Your task to perform on an android device: What is the recent news? Image 0: 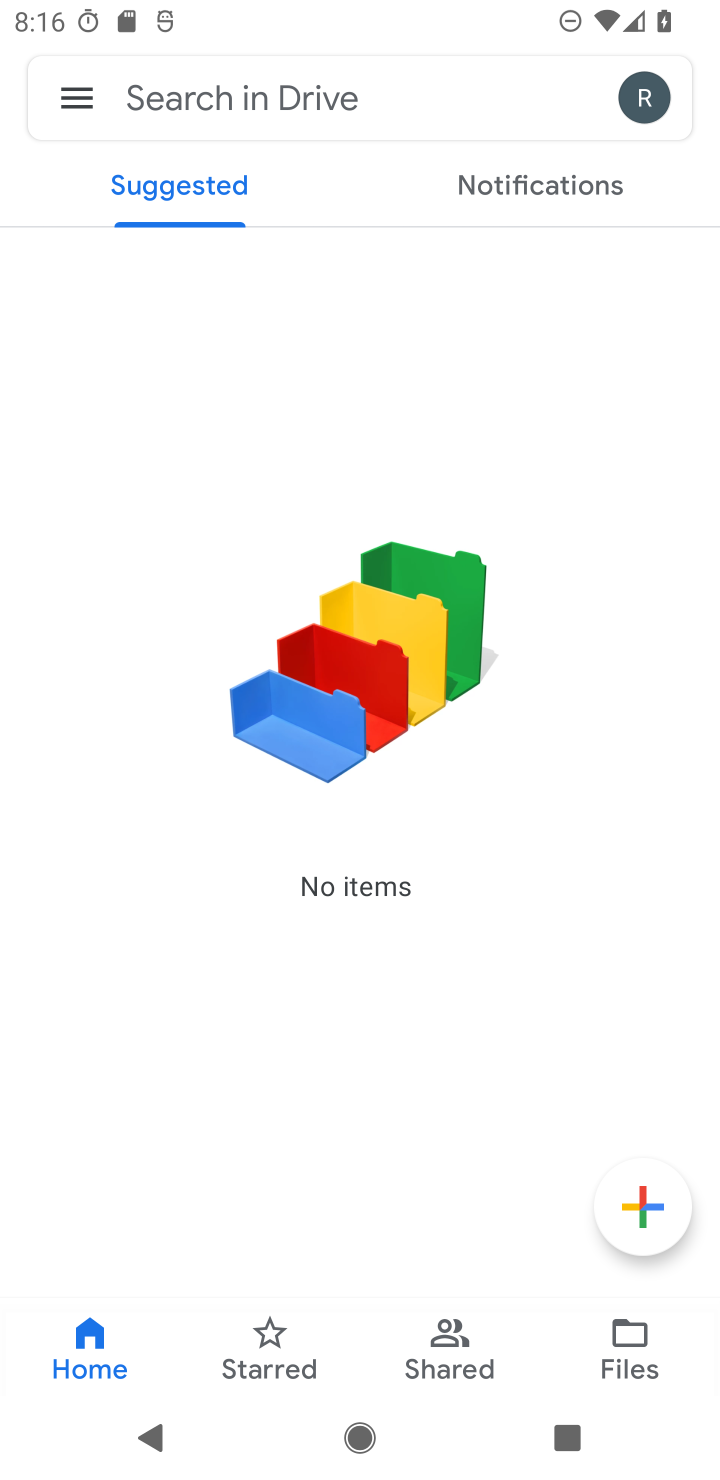
Step 0: press home button
Your task to perform on an android device: What is the recent news? Image 1: 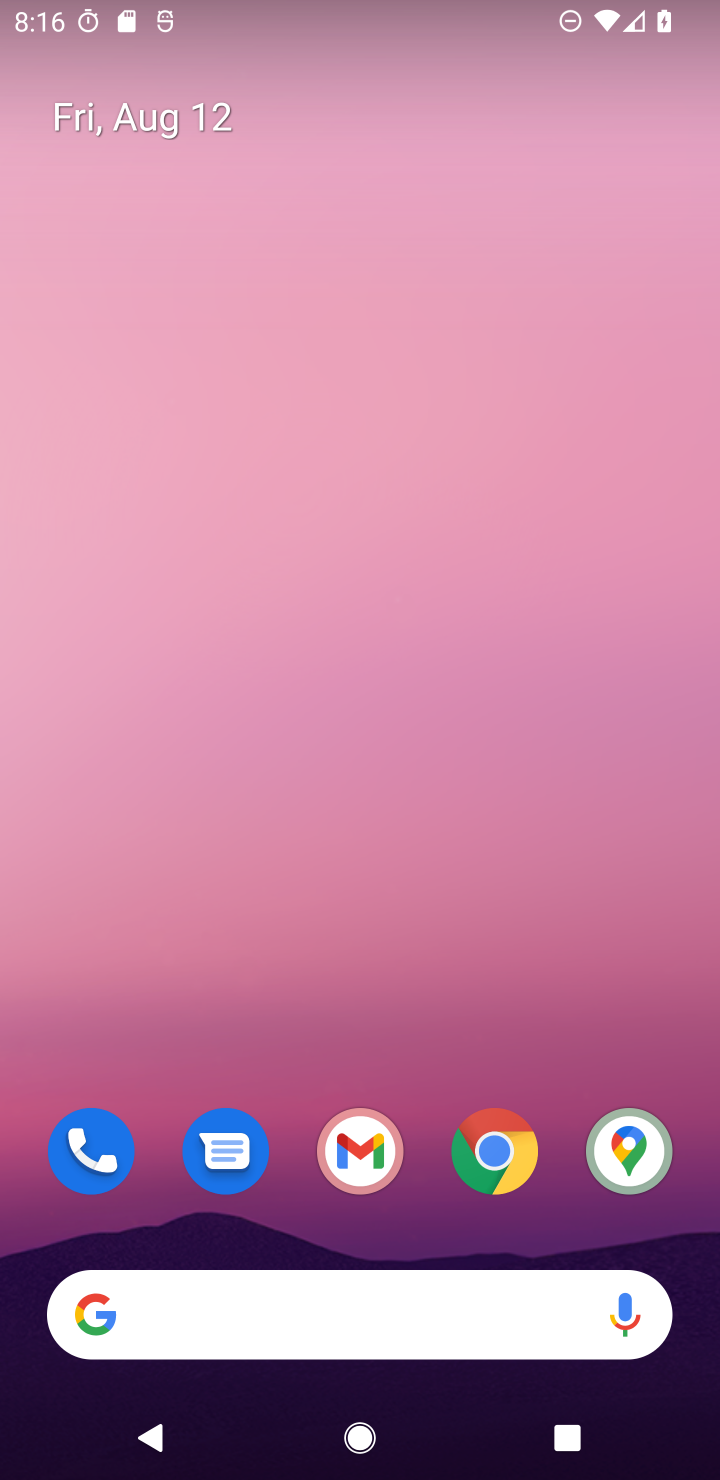
Step 1: drag from (449, 1039) to (479, 0)
Your task to perform on an android device: What is the recent news? Image 2: 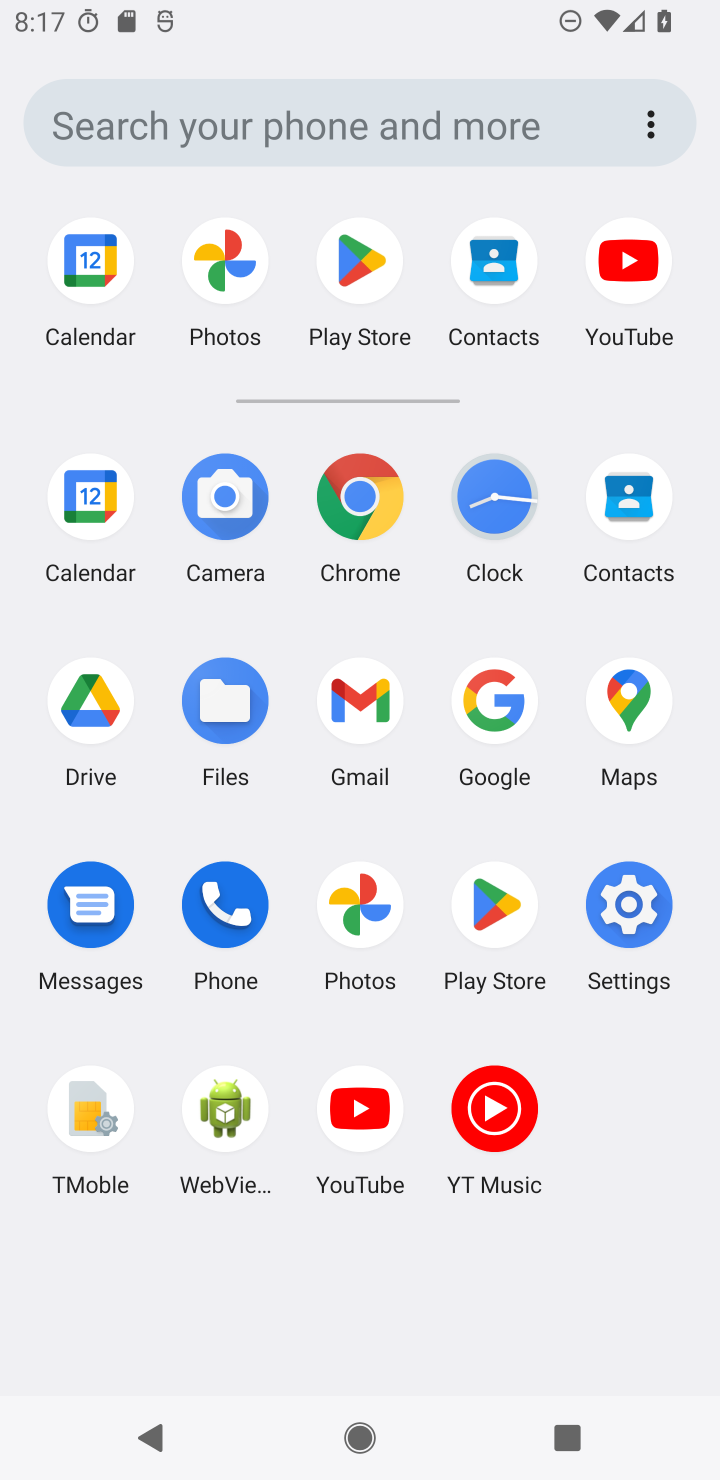
Step 2: click (363, 505)
Your task to perform on an android device: What is the recent news? Image 3: 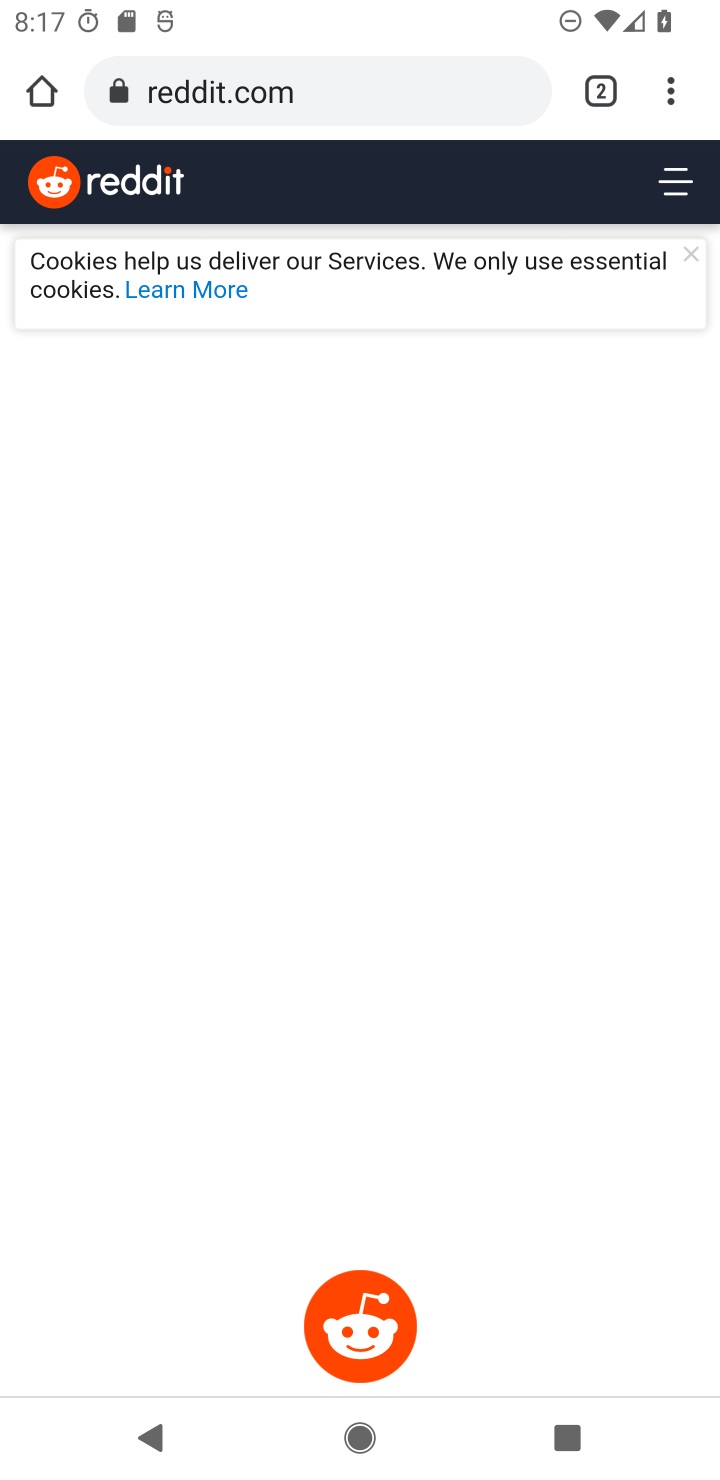
Step 3: click (424, 79)
Your task to perform on an android device: What is the recent news? Image 4: 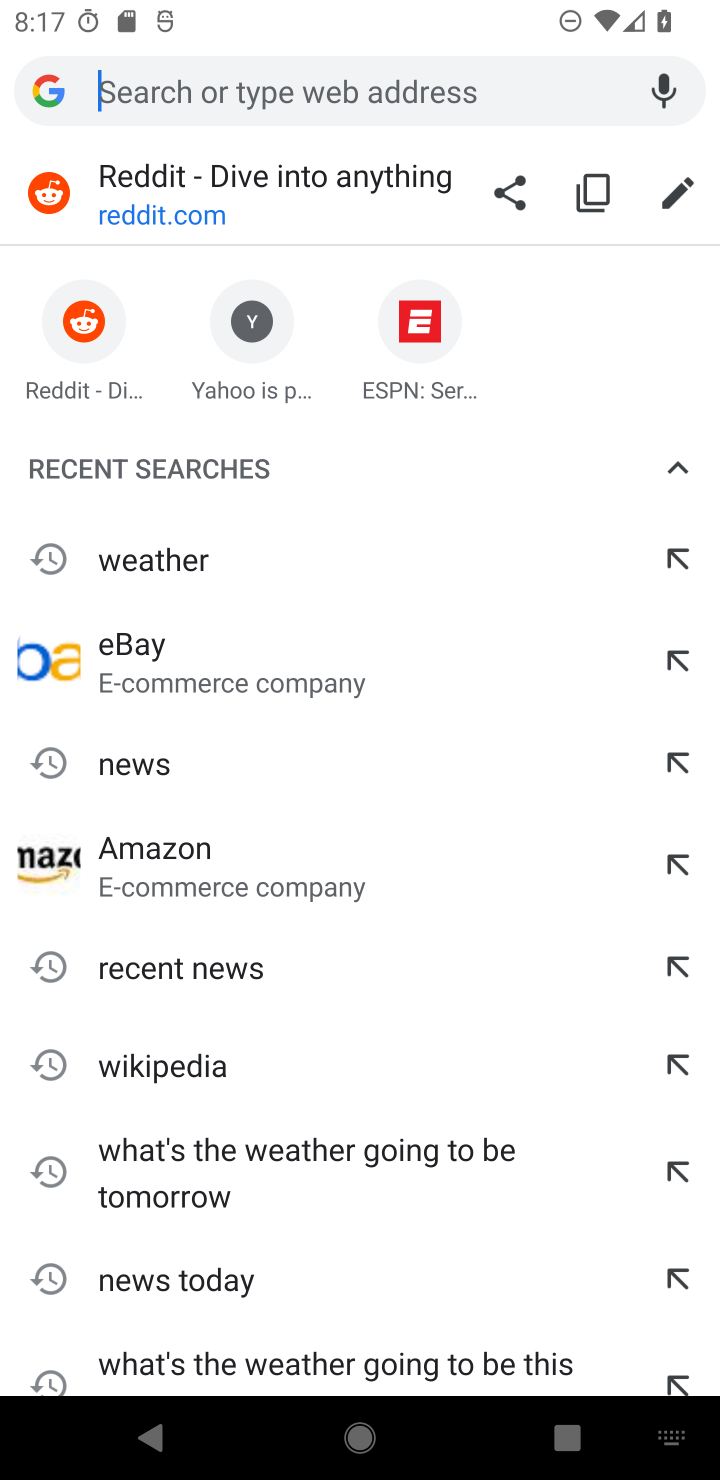
Step 4: type "news"
Your task to perform on an android device: What is the recent news? Image 5: 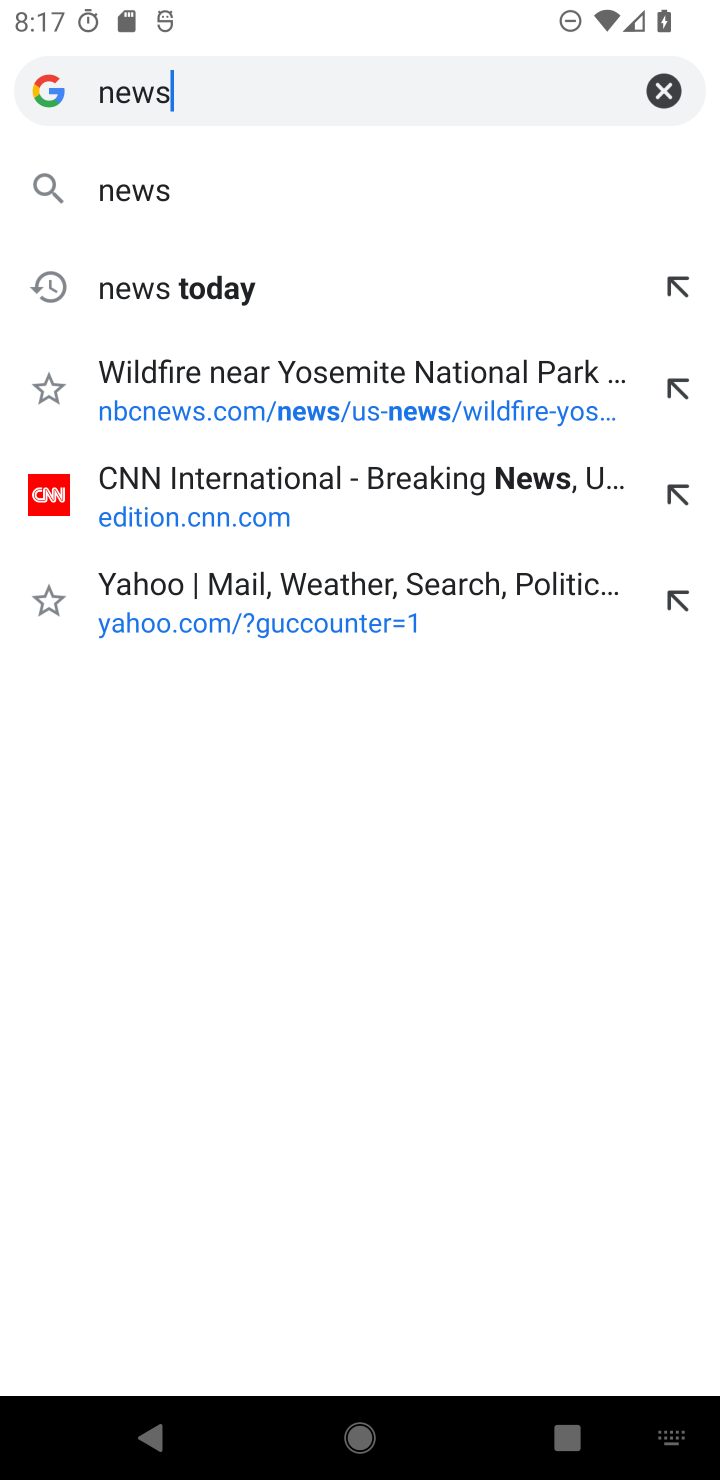
Step 5: click (161, 175)
Your task to perform on an android device: What is the recent news? Image 6: 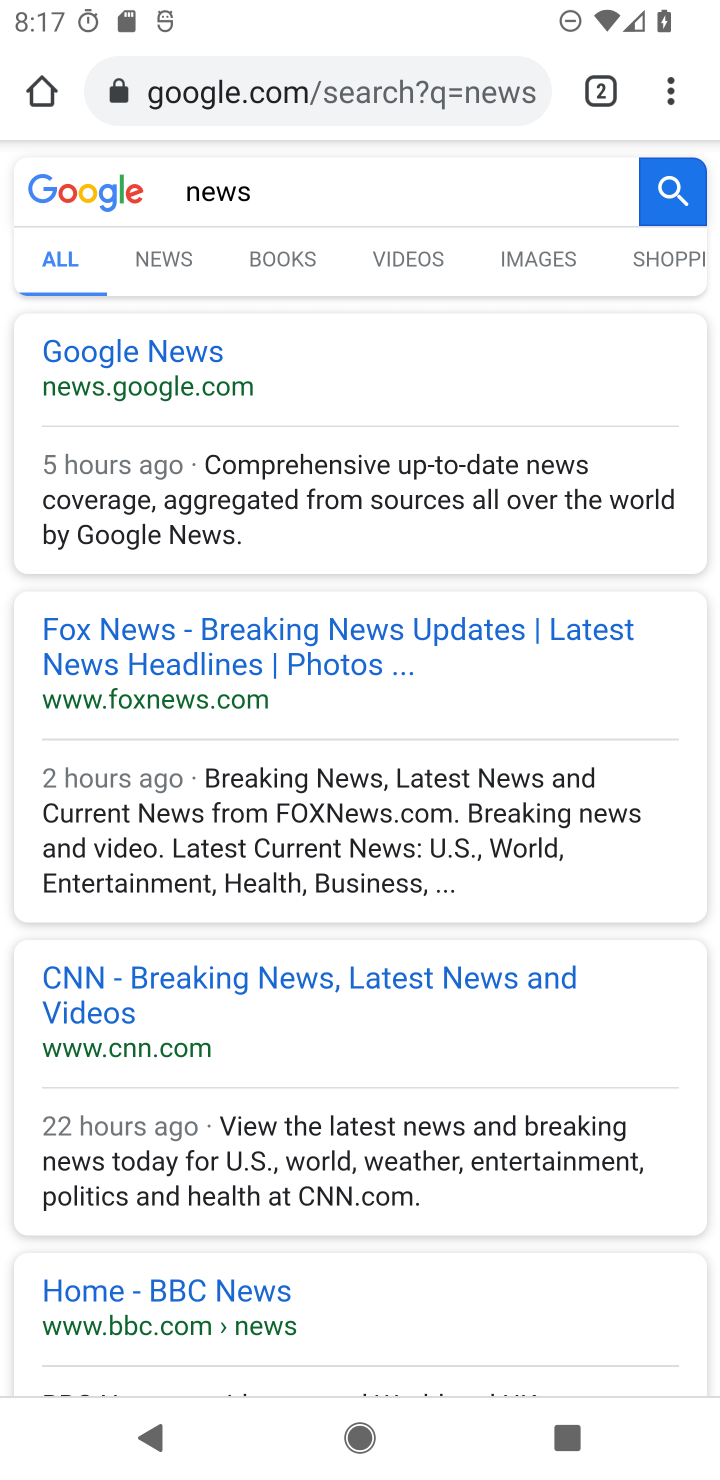
Step 6: click (190, 343)
Your task to perform on an android device: What is the recent news? Image 7: 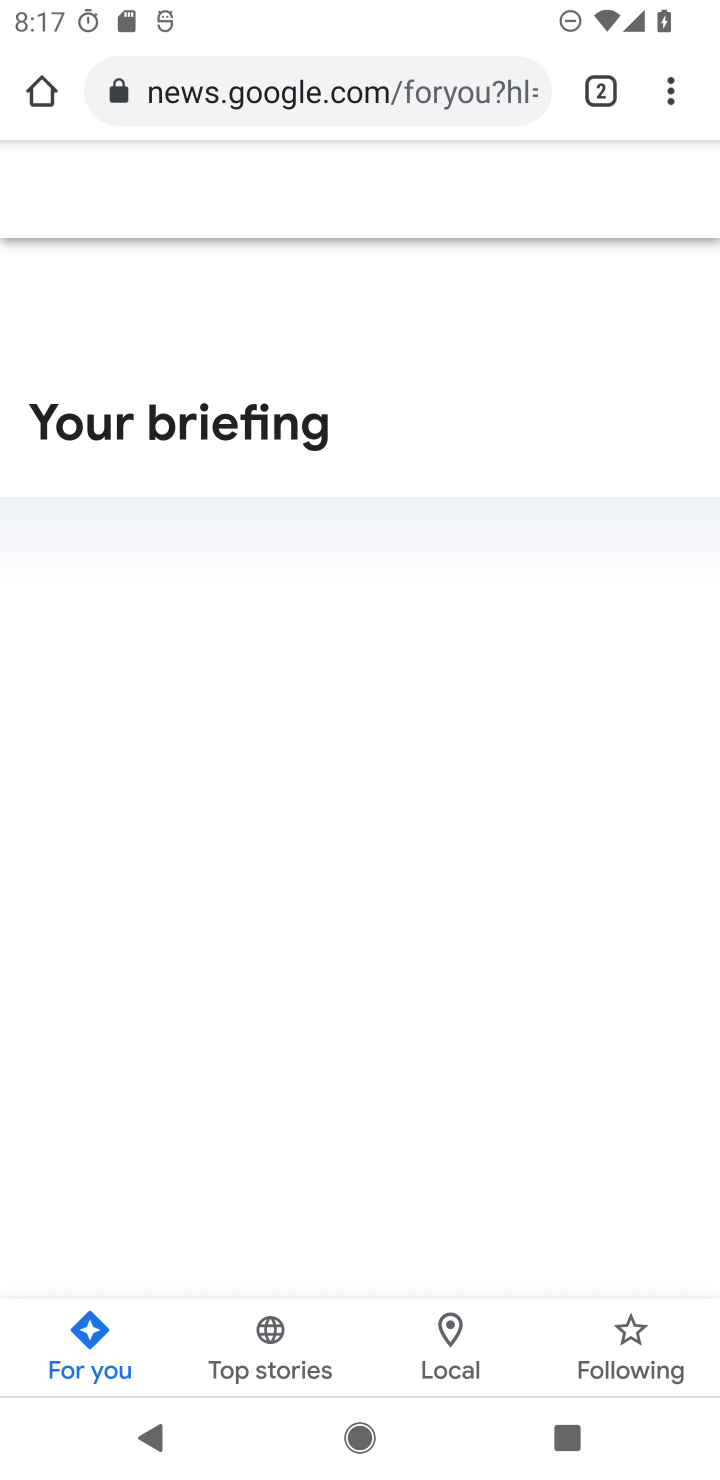
Step 7: drag from (320, 531) to (411, 0)
Your task to perform on an android device: What is the recent news? Image 8: 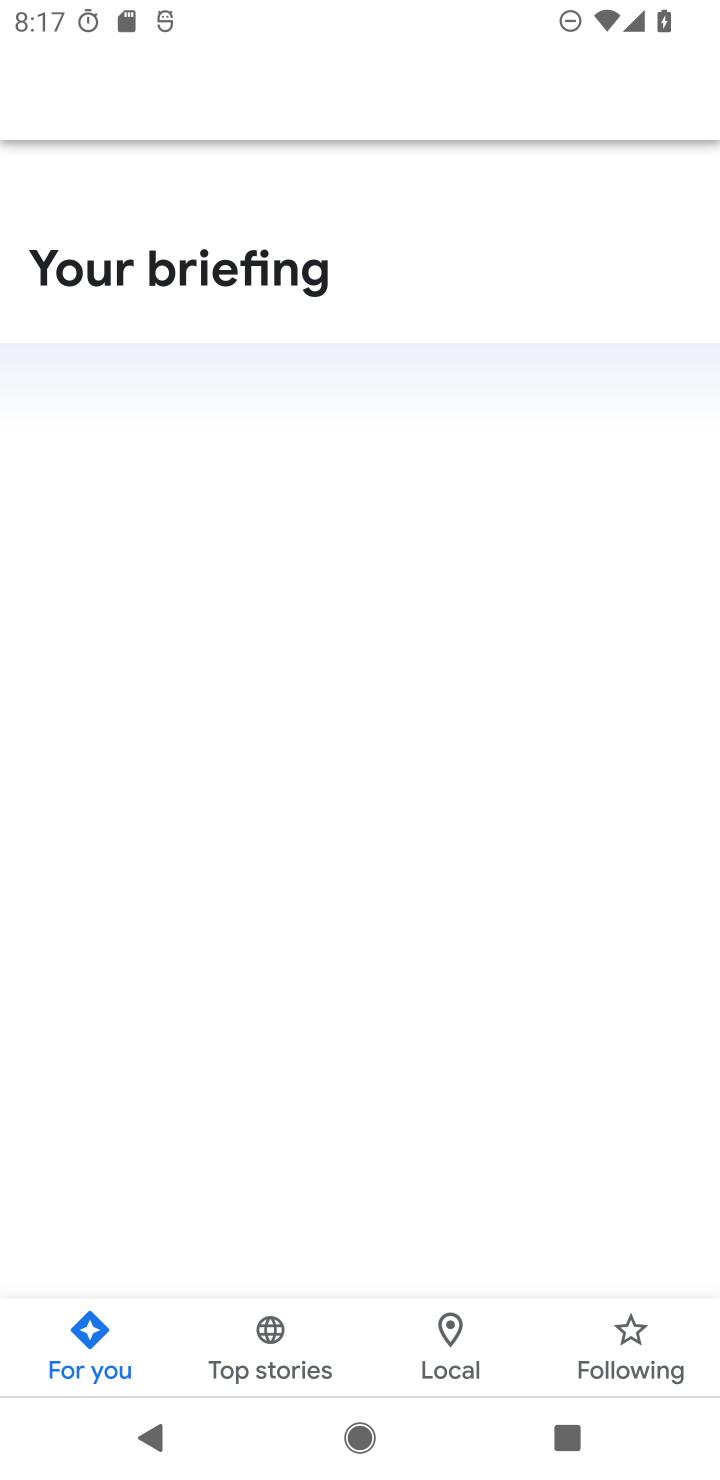
Step 8: drag from (516, 615) to (622, 141)
Your task to perform on an android device: What is the recent news? Image 9: 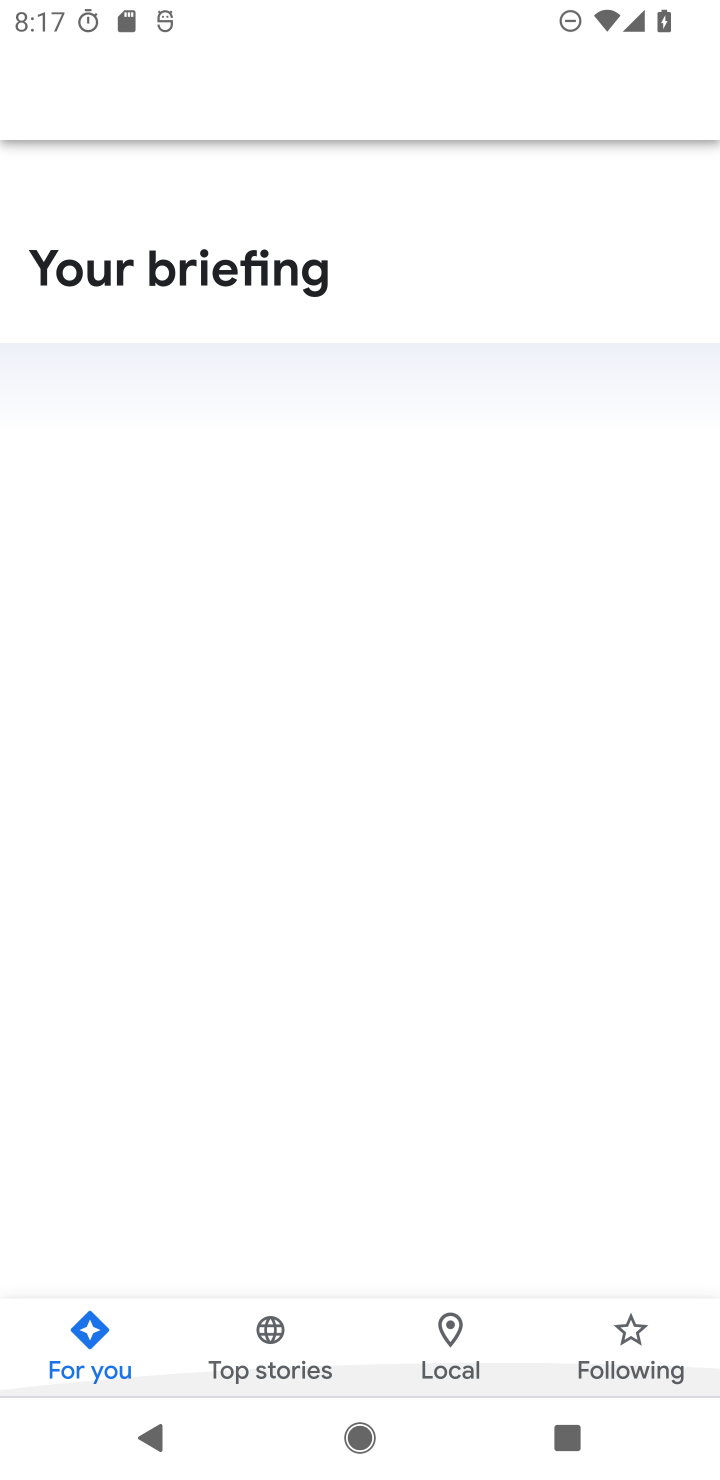
Step 9: drag from (582, 230) to (544, 930)
Your task to perform on an android device: What is the recent news? Image 10: 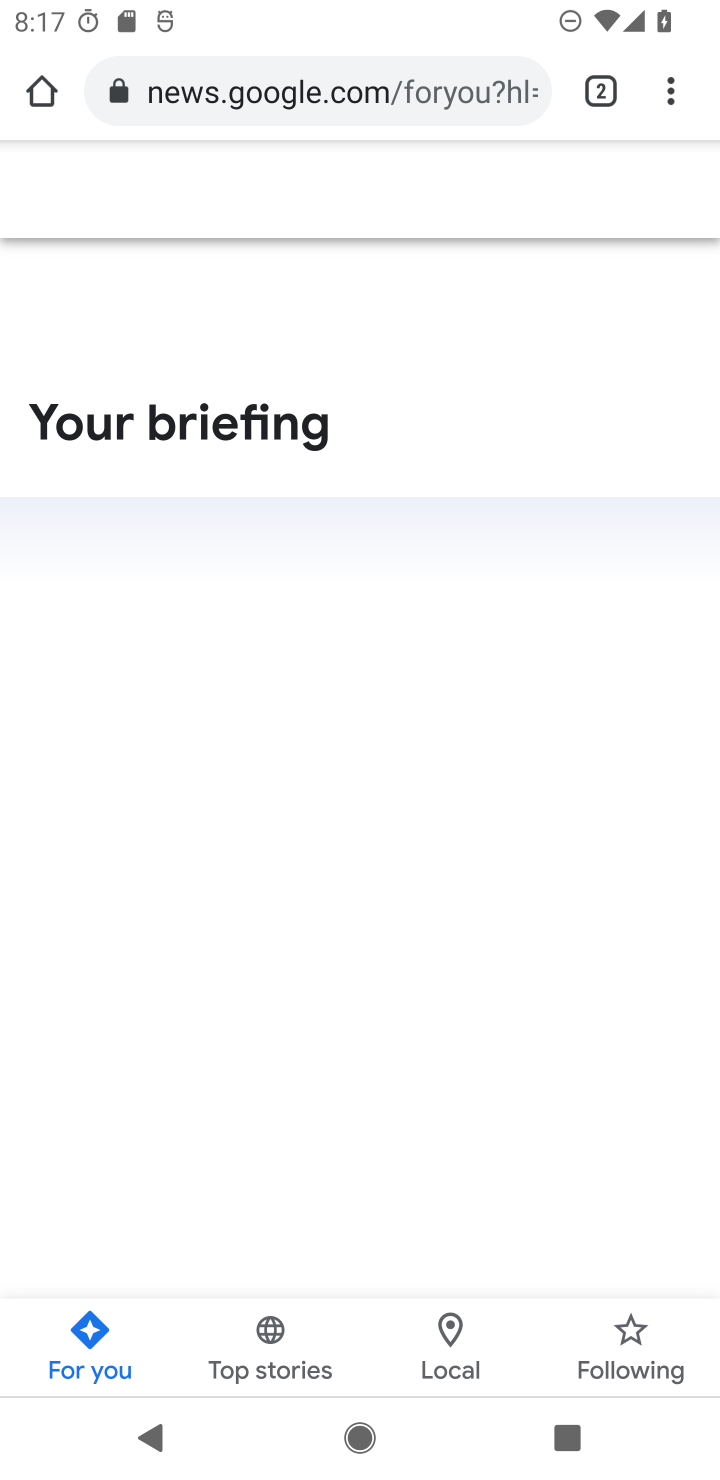
Step 10: click (665, 85)
Your task to perform on an android device: What is the recent news? Image 11: 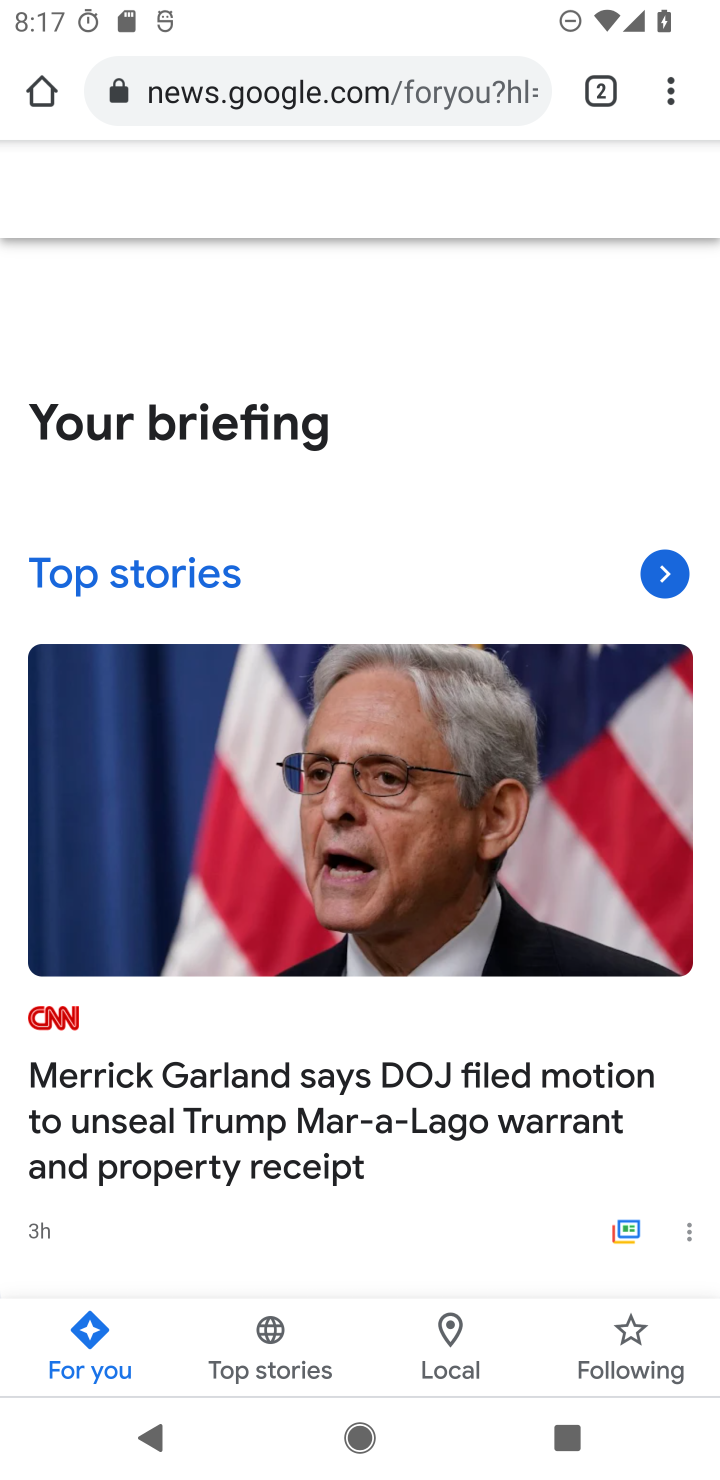
Step 11: task complete